Your task to perform on an android device: Open the stopwatch Image 0: 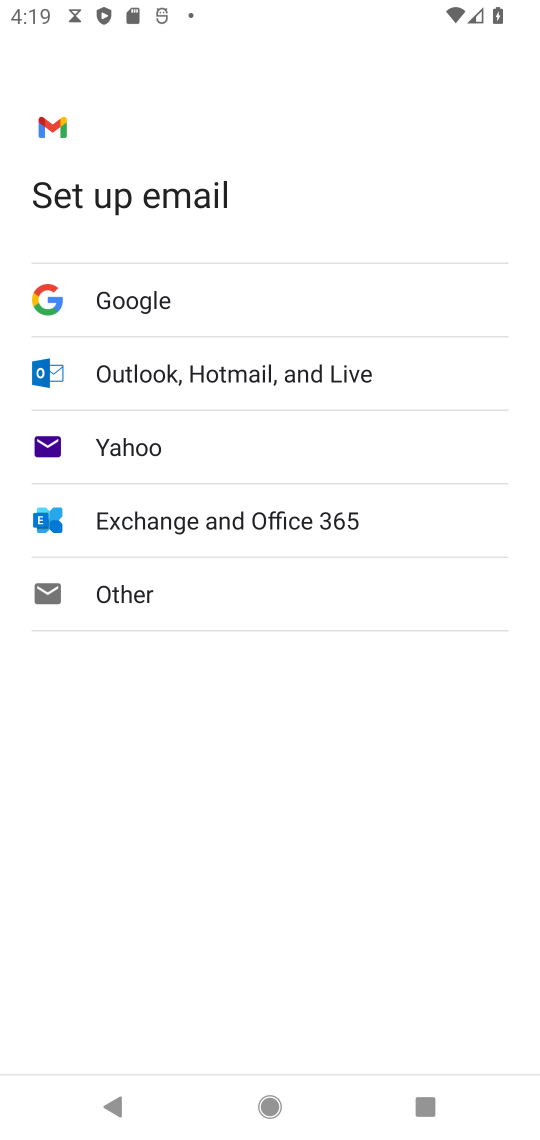
Step 0: press home button
Your task to perform on an android device: Open the stopwatch Image 1: 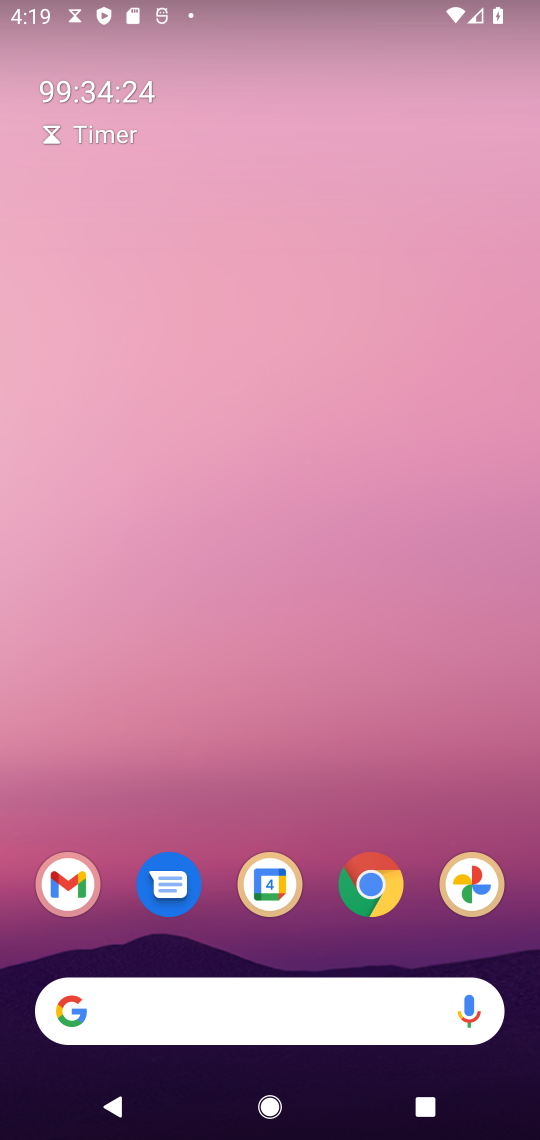
Step 1: drag from (253, 886) to (261, 366)
Your task to perform on an android device: Open the stopwatch Image 2: 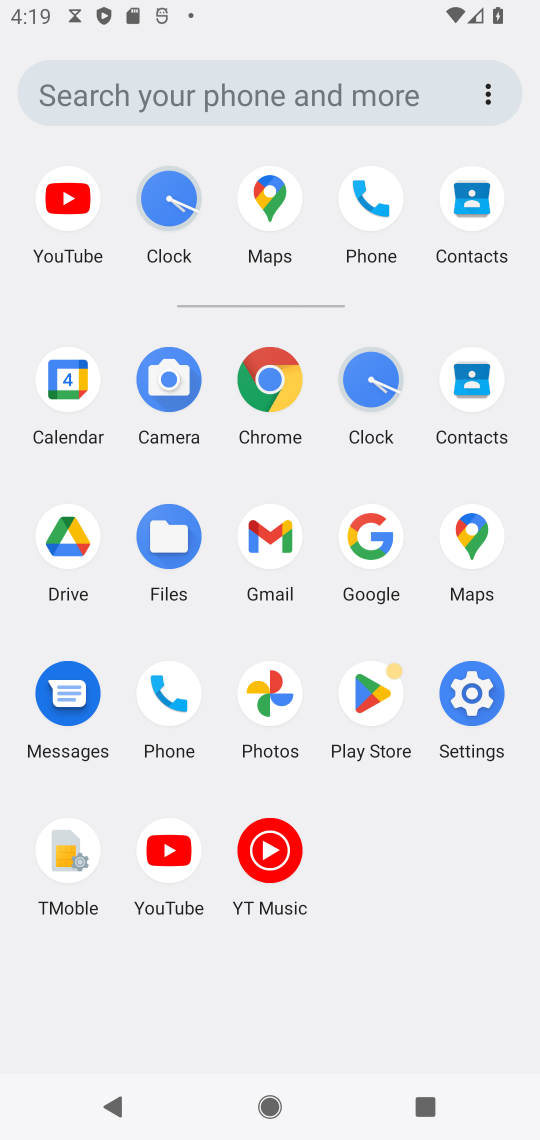
Step 2: click (378, 369)
Your task to perform on an android device: Open the stopwatch Image 3: 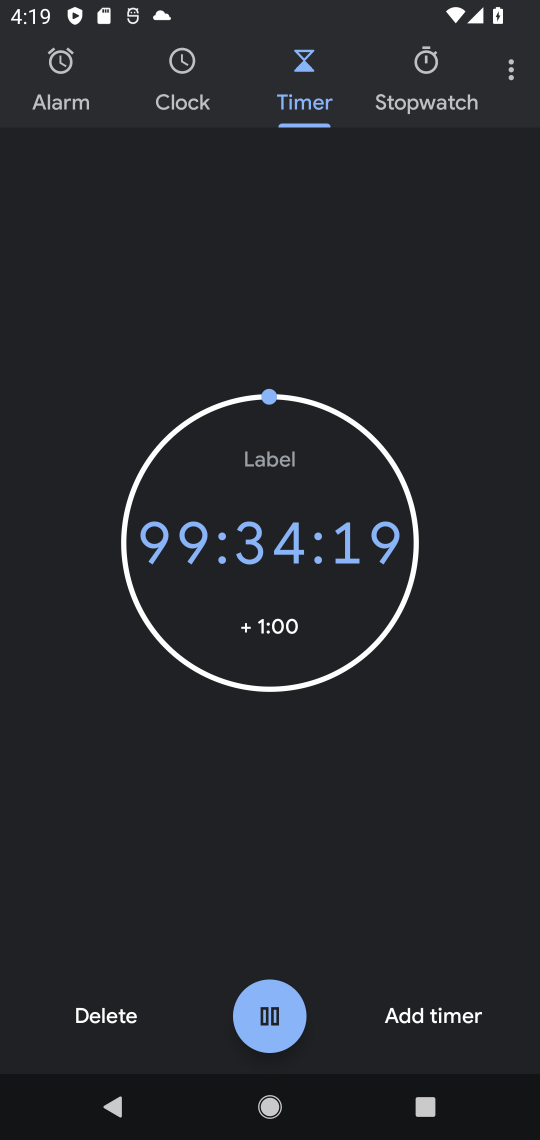
Step 3: click (437, 82)
Your task to perform on an android device: Open the stopwatch Image 4: 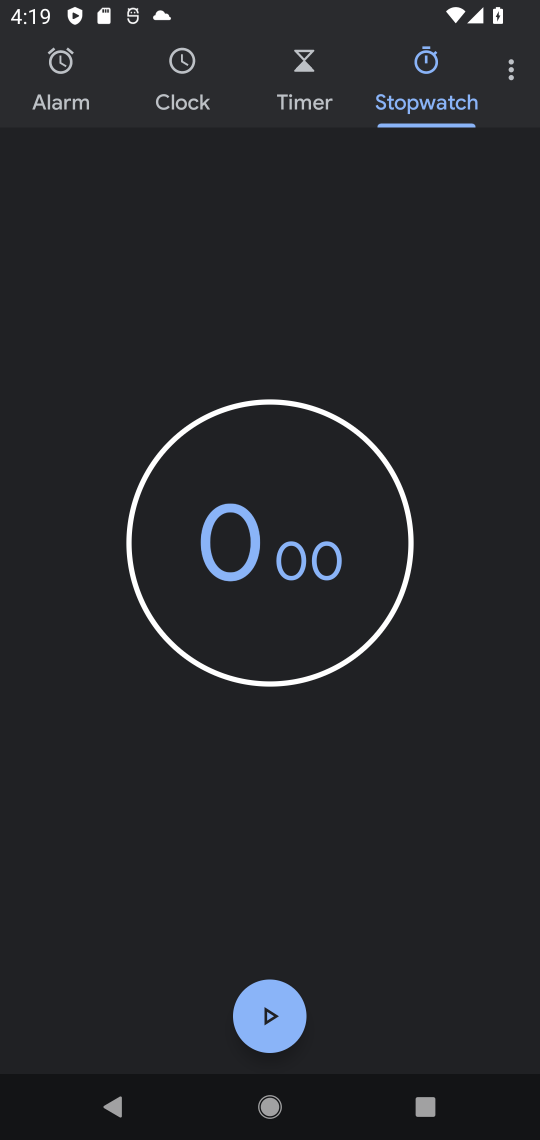
Step 4: task complete